Your task to perform on an android device: visit the assistant section in the google photos Image 0: 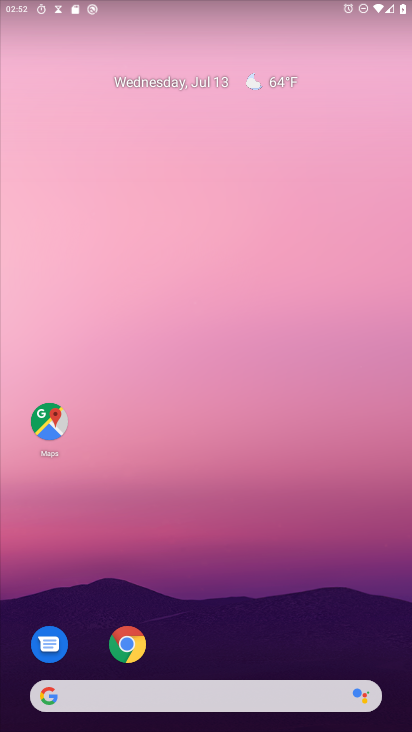
Step 0: press home button
Your task to perform on an android device: visit the assistant section in the google photos Image 1: 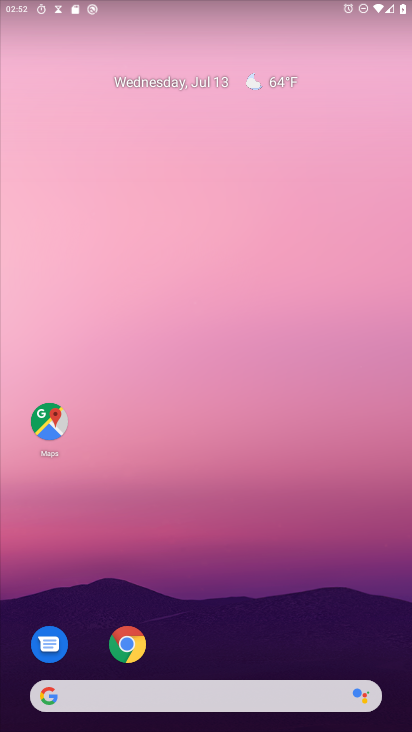
Step 1: drag from (242, 544) to (237, 197)
Your task to perform on an android device: visit the assistant section in the google photos Image 2: 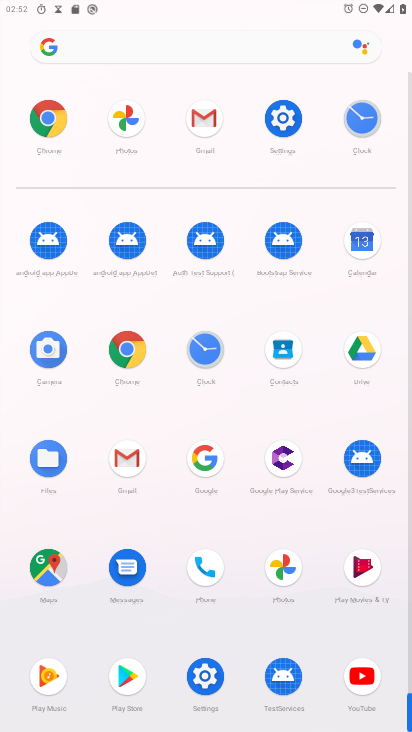
Step 2: click (290, 555)
Your task to perform on an android device: visit the assistant section in the google photos Image 3: 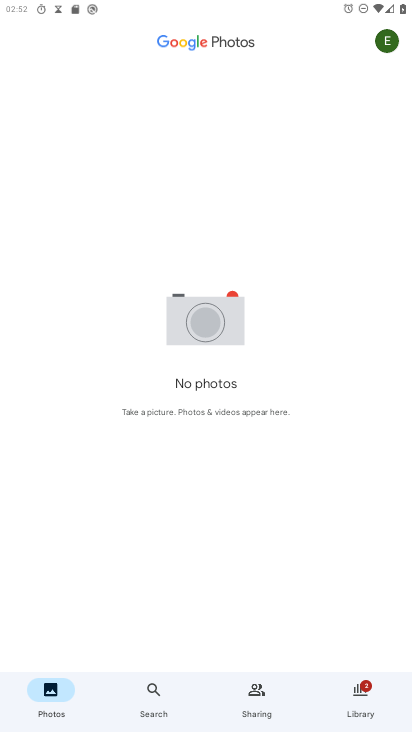
Step 3: click (145, 691)
Your task to perform on an android device: visit the assistant section in the google photos Image 4: 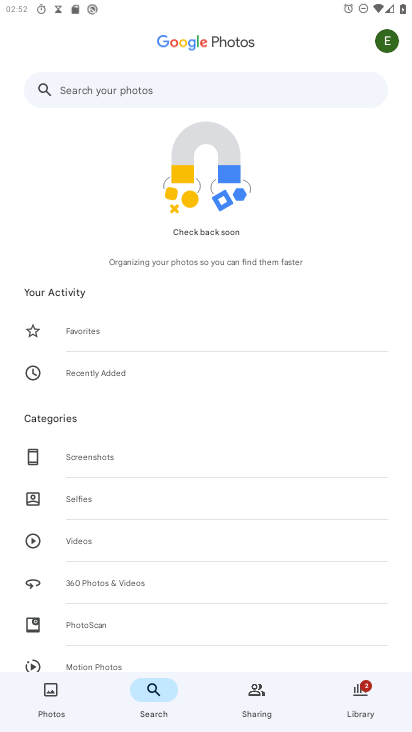
Step 4: task complete